Your task to perform on an android device: toggle translation in the chrome app Image 0: 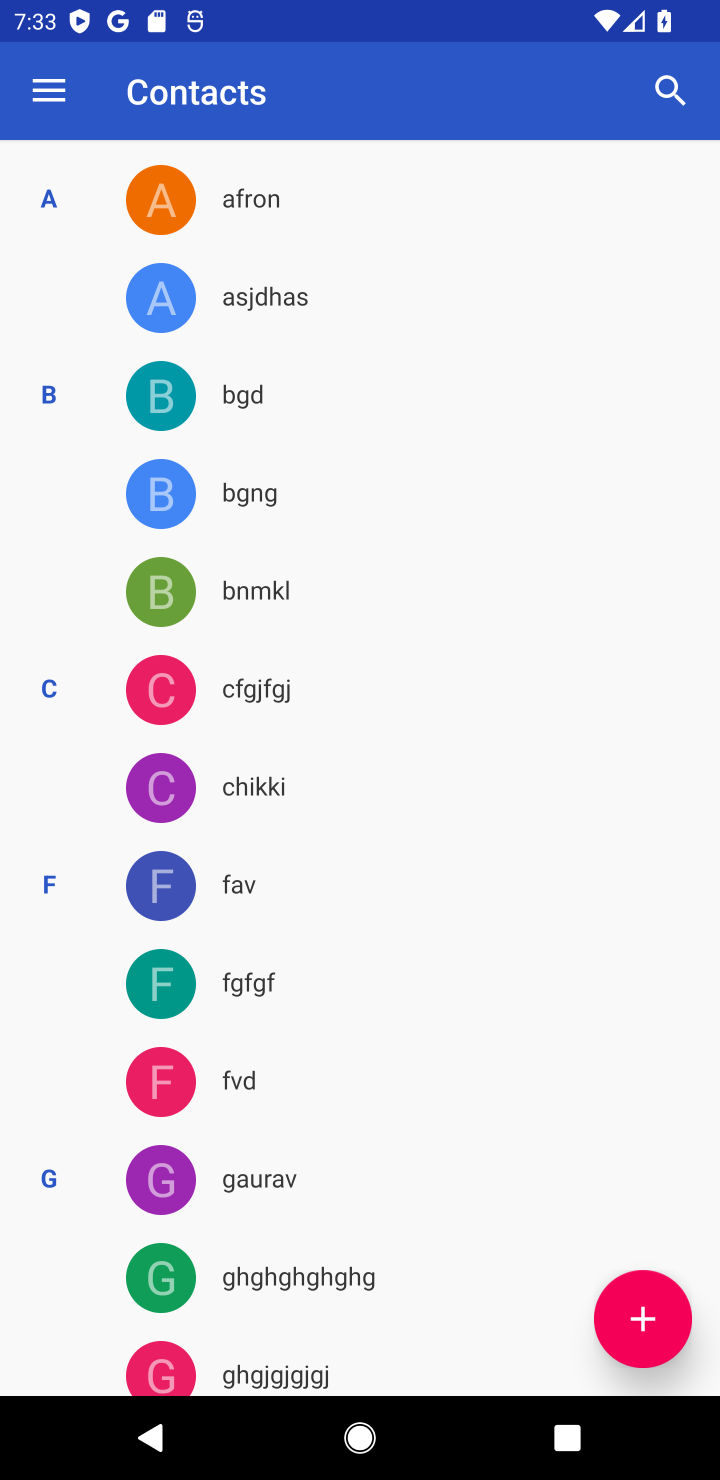
Step 0: press home button
Your task to perform on an android device: toggle translation in the chrome app Image 1: 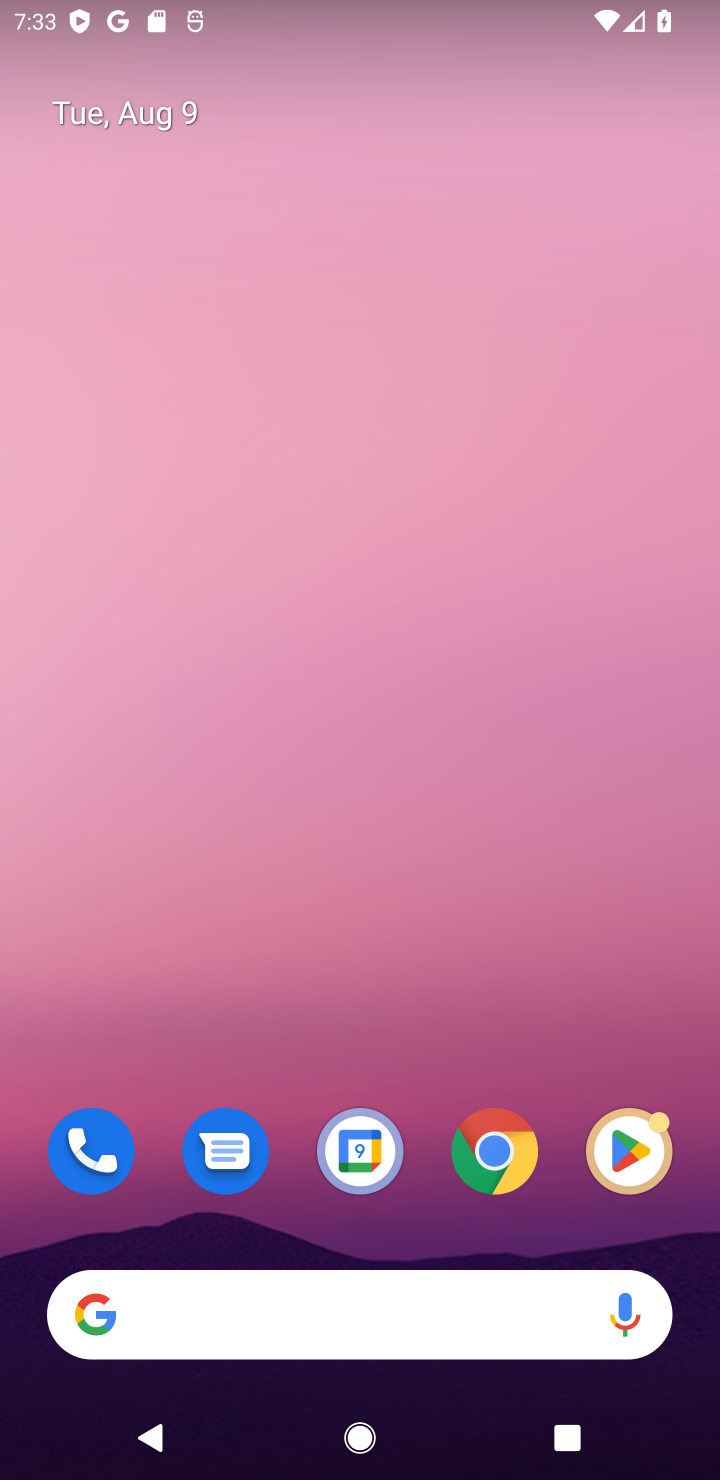
Step 1: click (475, 1168)
Your task to perform on an android device: toggle translation in the chrome app Image 2: 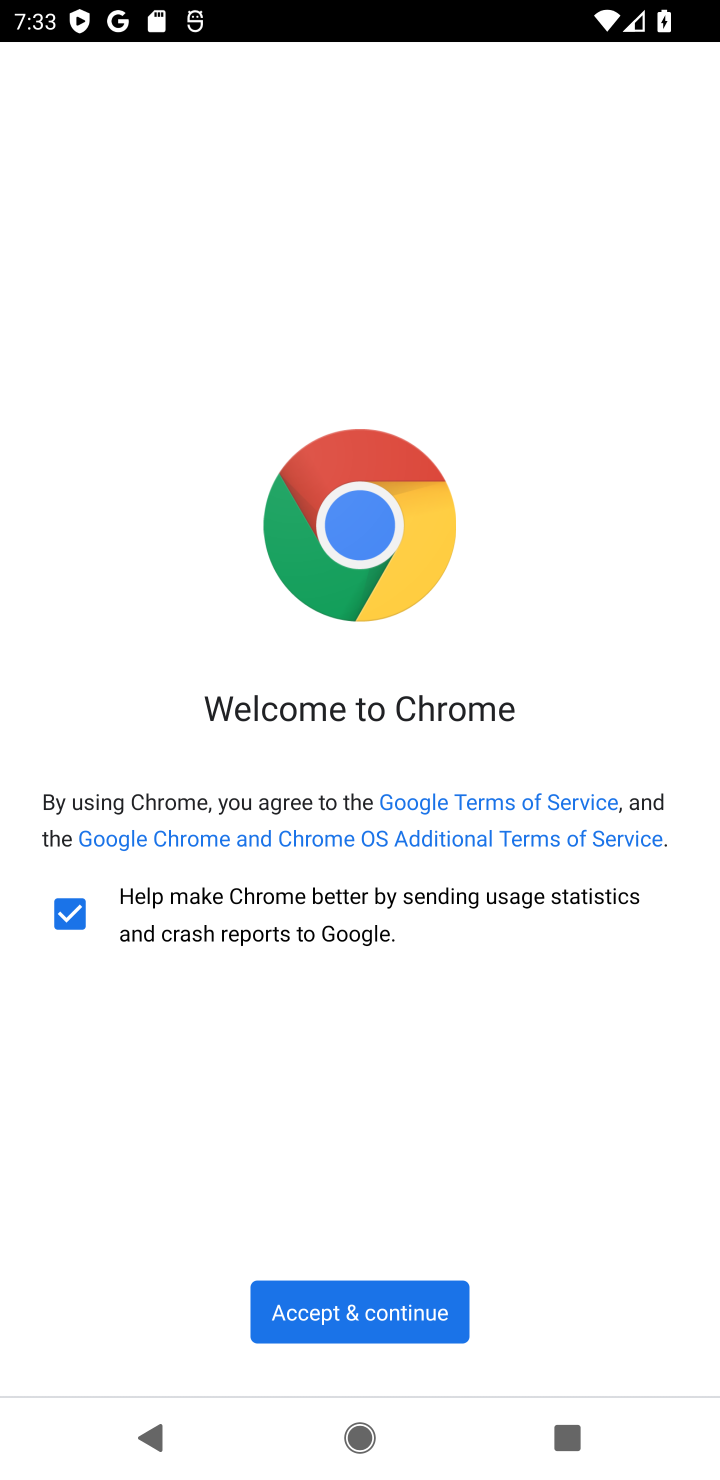
Step 2: click (375, 1302)
Your task to perform on an android device: toggle translation in the chrome app Image 3: 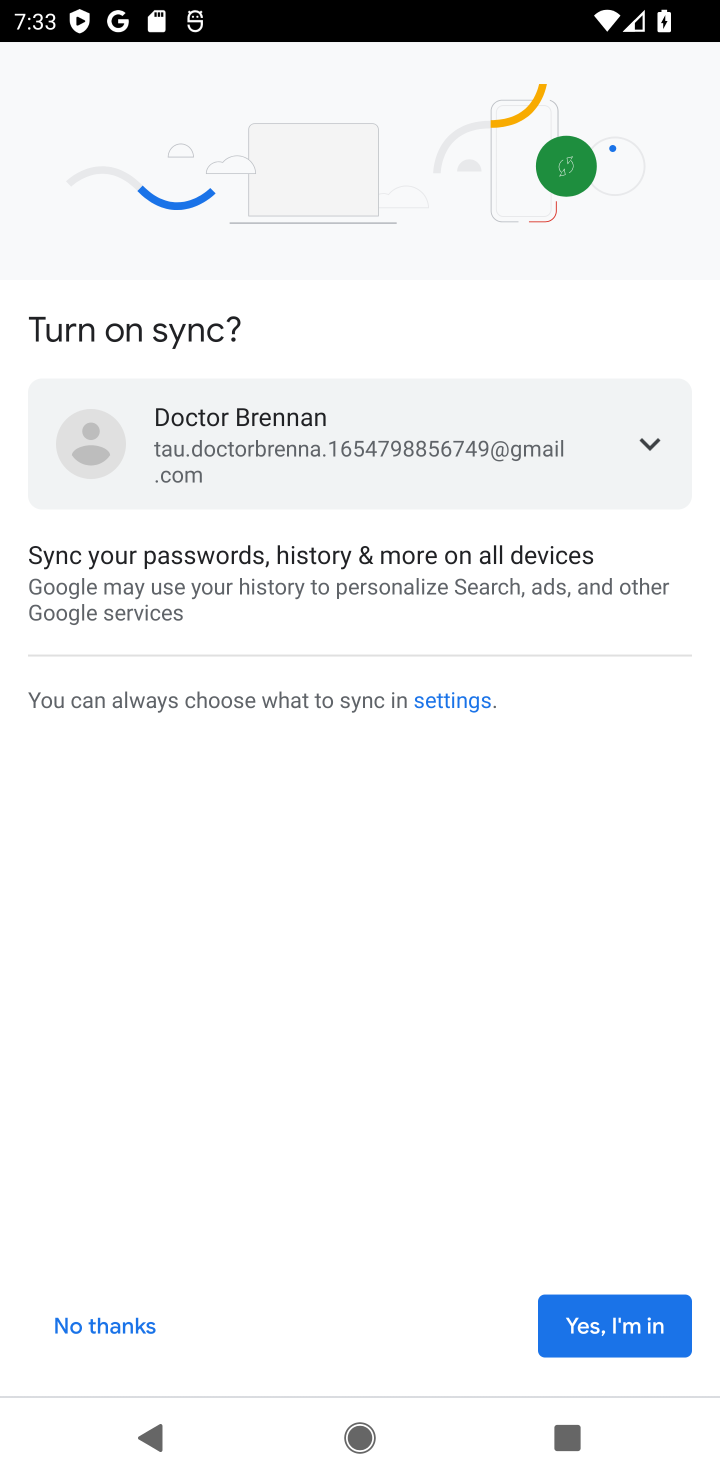
Step 3: click (589, 1336)
Your task to perform on an android device: toggle translation in the chrome app Image 4: 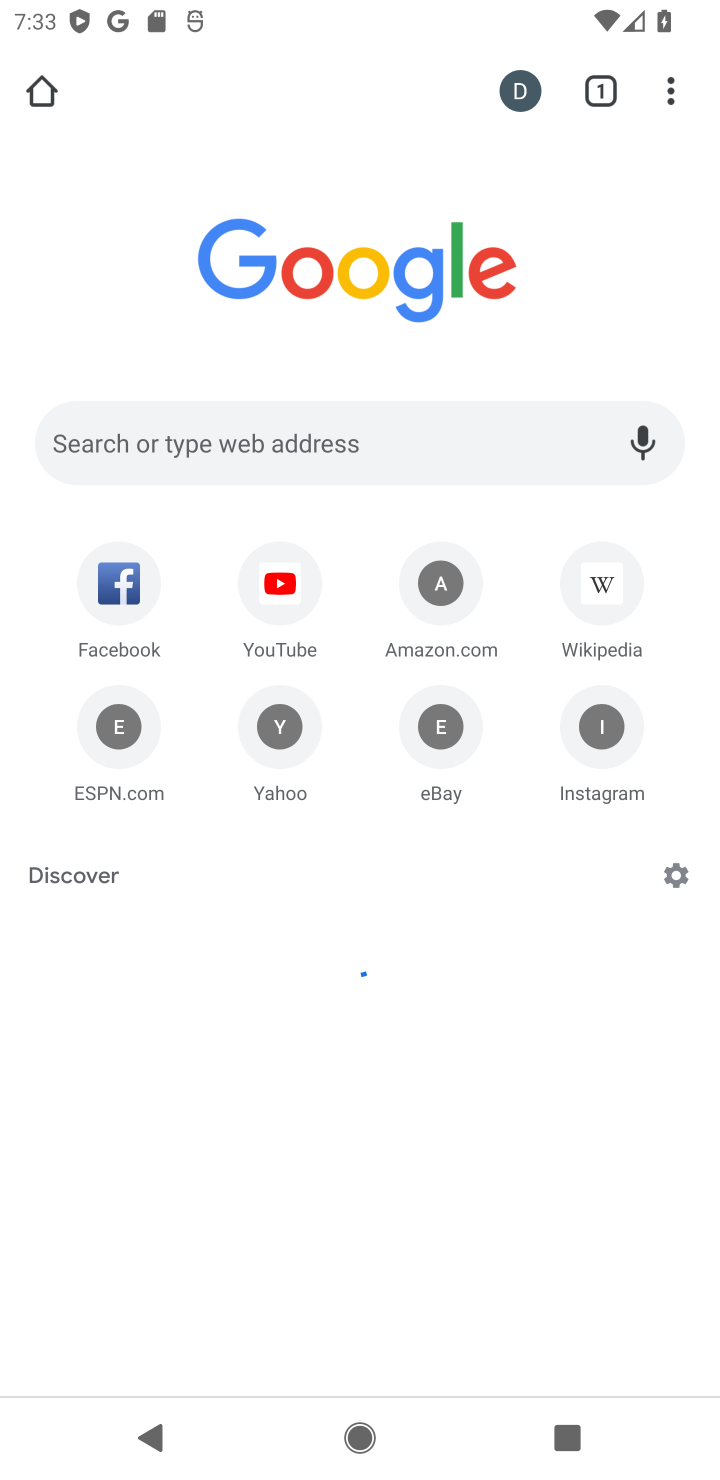
Step 4: click (670, 94)
Your task to perform on an android device: toggle translation in the chrome app Image 5: 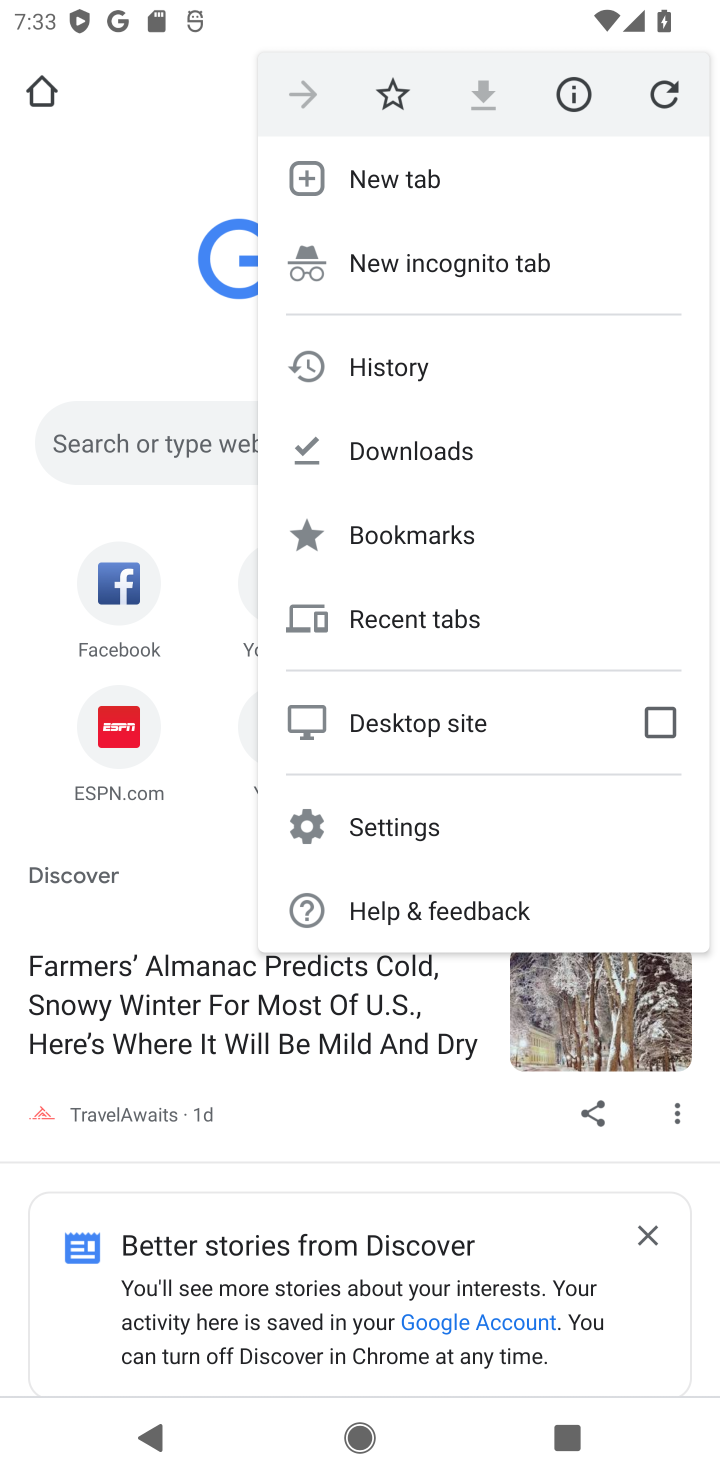
Step 5: click (368, 823)
Your task to perform on an android device: toggle translation in the chrome app Image 6: 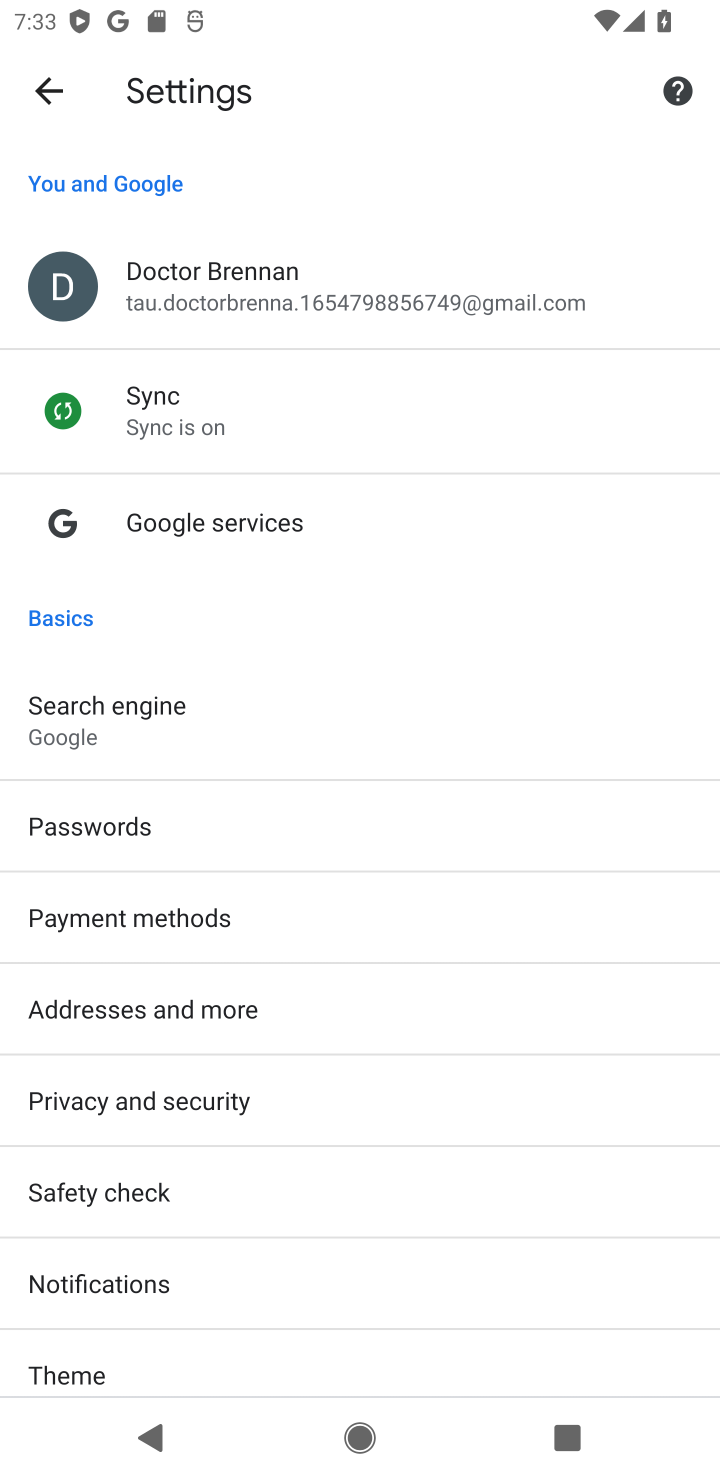
Step 6: drag from (368, 1080) to (381, 216)
Your task to perform on an android device: toggle translation in the chrome app Image 7: 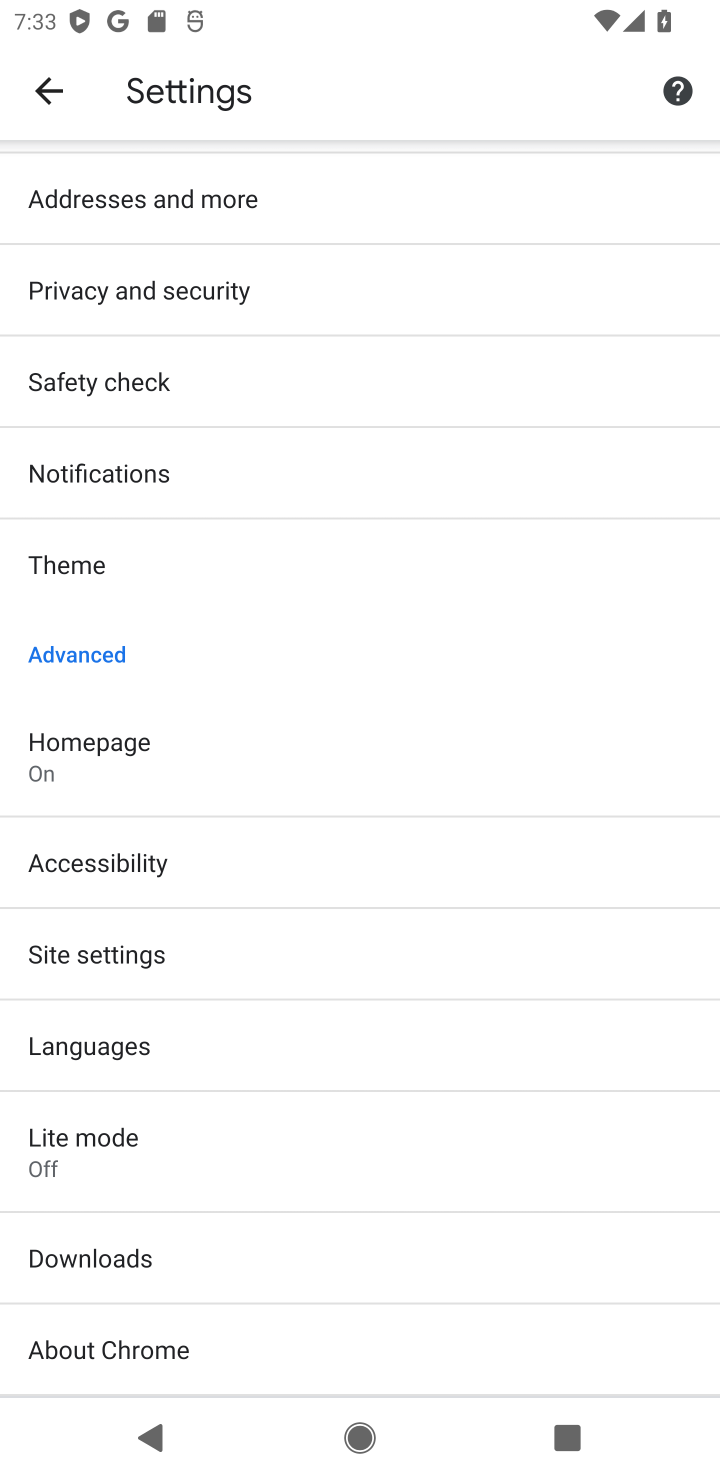
Step 7: click (121, 1039)
Your task to perform on an android device: toggle translation in the chrome app Image 8: 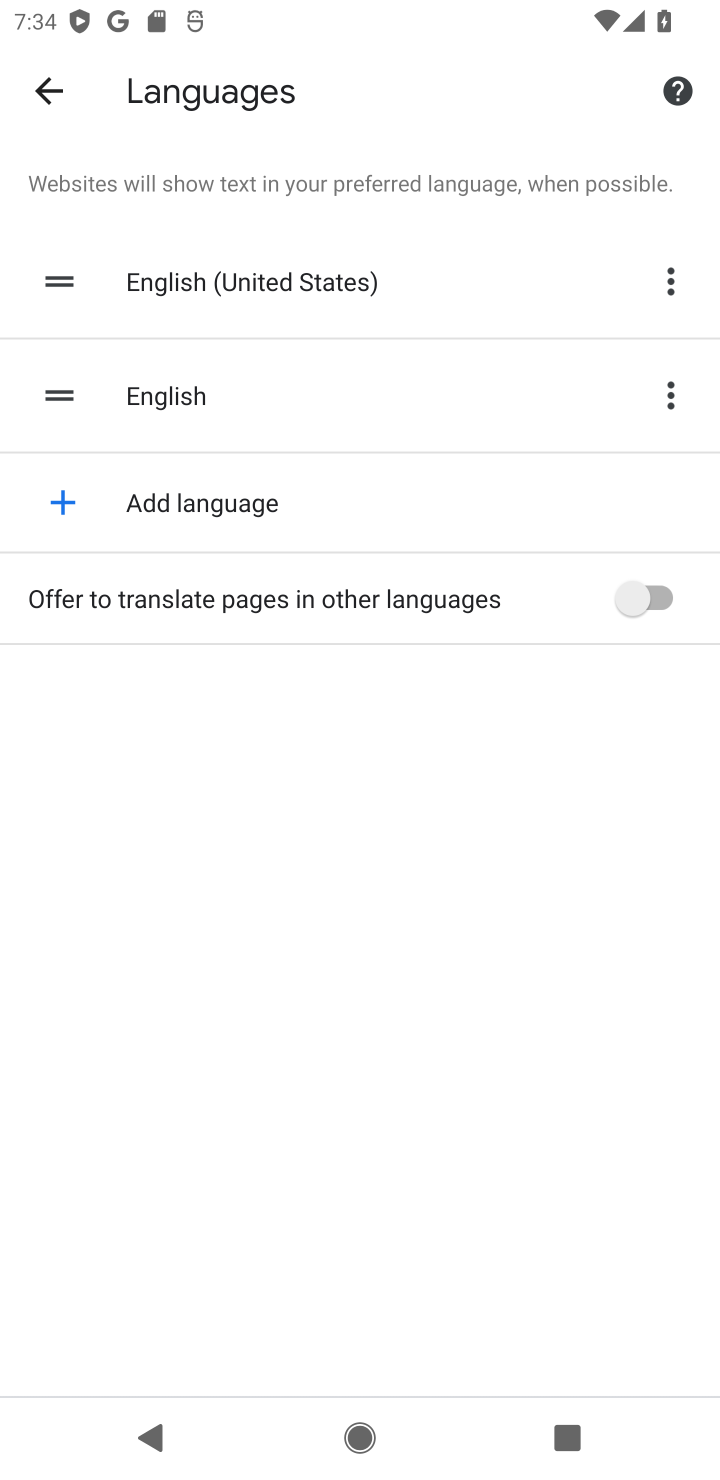
Step 8: click (638, 600)
Your task to perform on an android device: toggle translation in the chrome app Image 9: 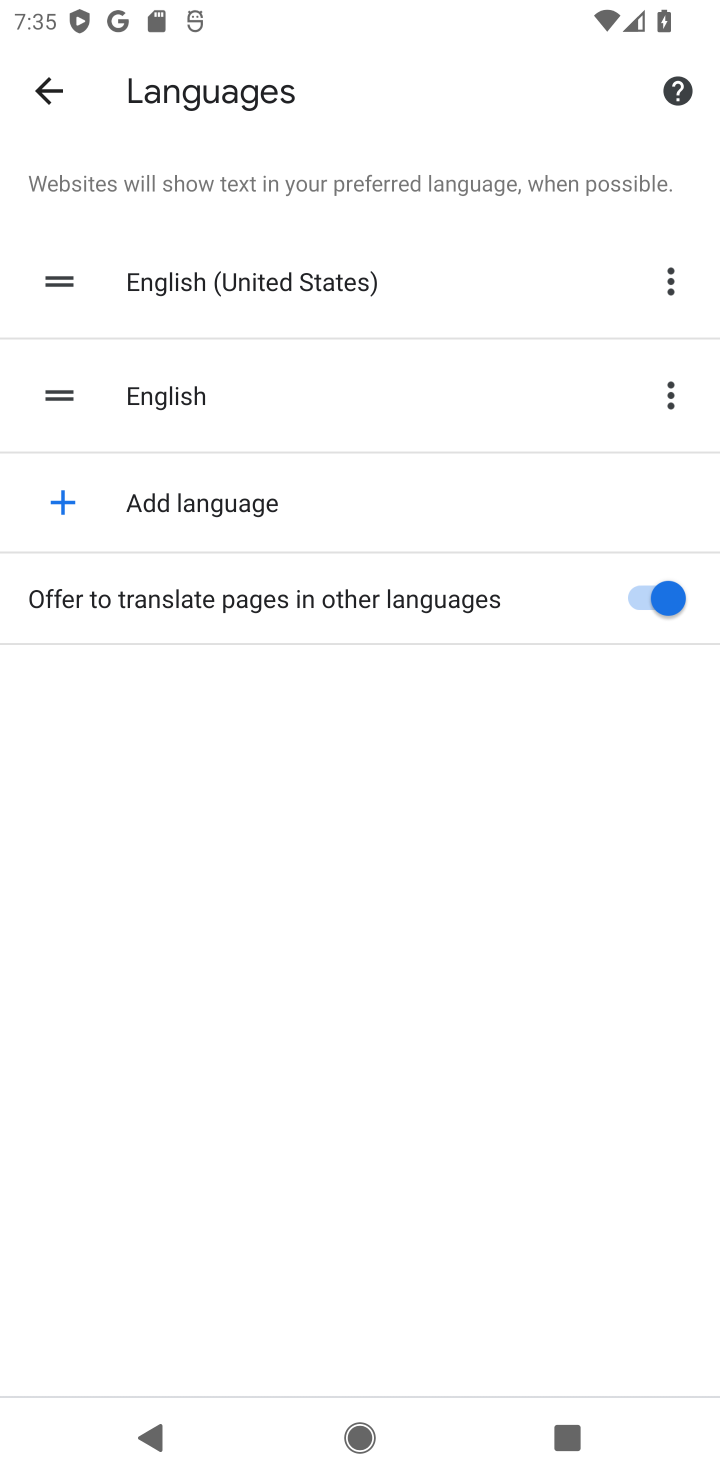
Step 9: task complete